Your task to perform on an android device: When is my next meeting? Image 0: 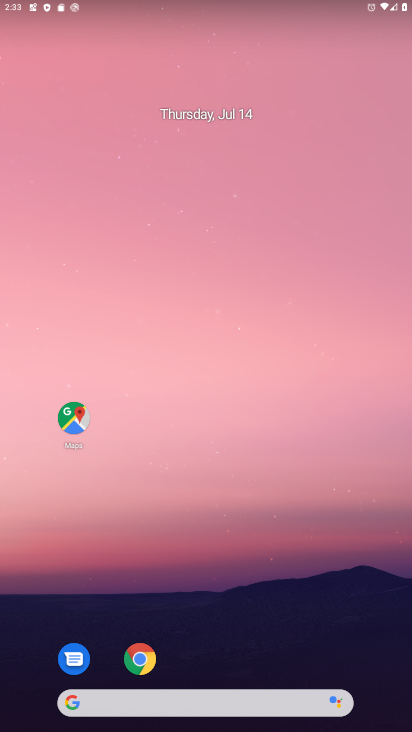
Step 0: press home button
Your task to perform on an android device: When is my next meeting? Image 1: 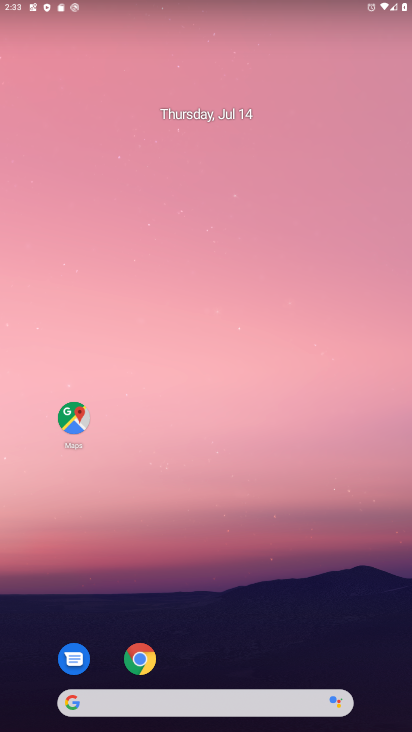
Step 1: drag from (191, 667) to (245, 203)
Your task to perform on an android device: When is my next meeting? Image 2: 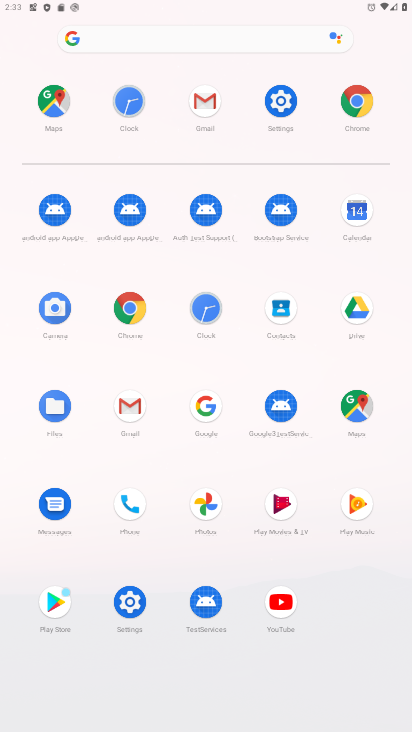
Step 2: click (359, 210)
Your task to perform on an android device: When is my next meeting? Image 3: 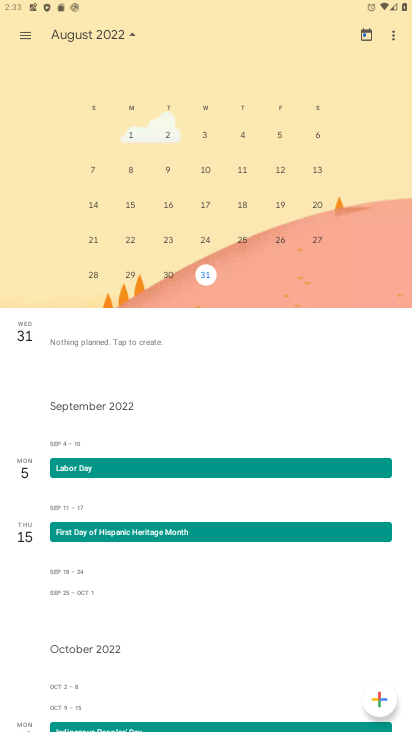
Step 3: click (16, 39)
Your task to perform on an android device: When is my next meeting? Image 4: 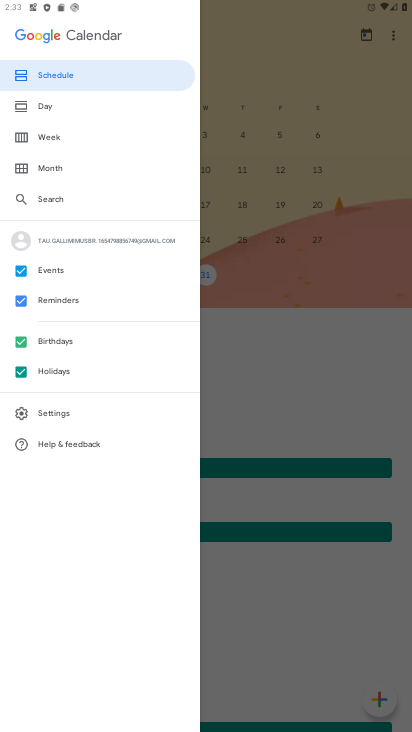
Step 4: click (56, 81)
Your task to perform on an android device: When is my next meeting? Image 5: 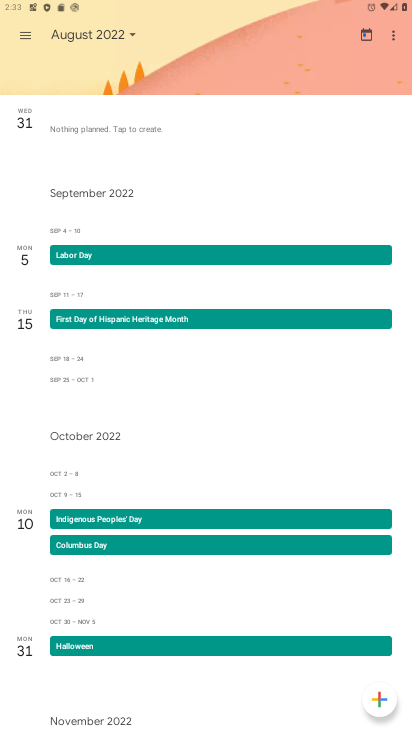
Step 5: task complete